Your task to perform on an android device: Empty the shopping cart on bestbuy. Search for "logitech g910" on bestbuy, select the first entry, add it to the cart, then select checkout. Image 0: 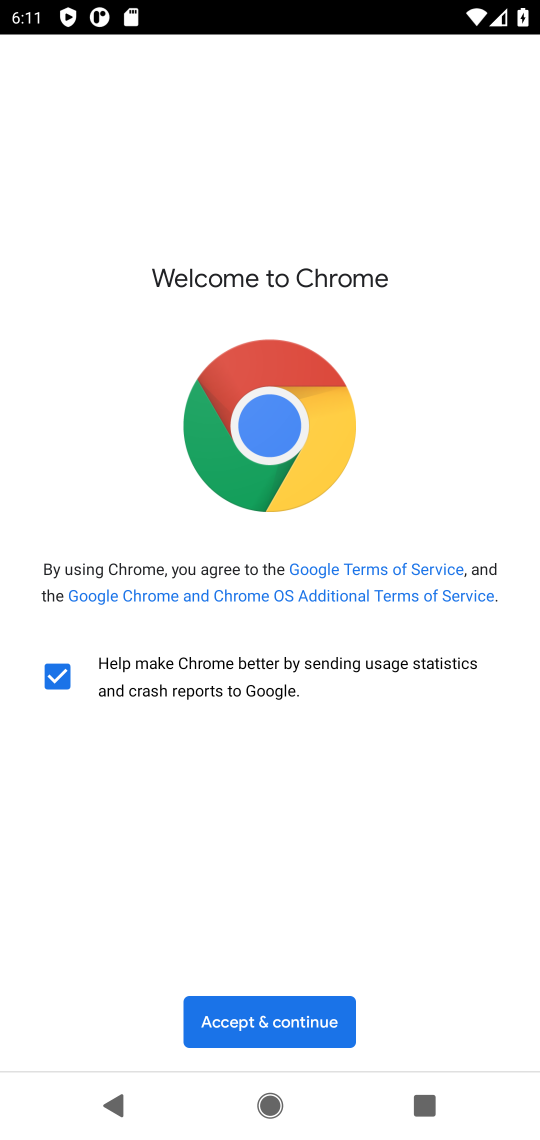
Step 0: press home button
Your task to perform on an android device: Empty the shopping cart on bestbuy. Search for "logitech g910" on bestbuy, select the first entry, add it to the cart, then select checkout. Image 1: 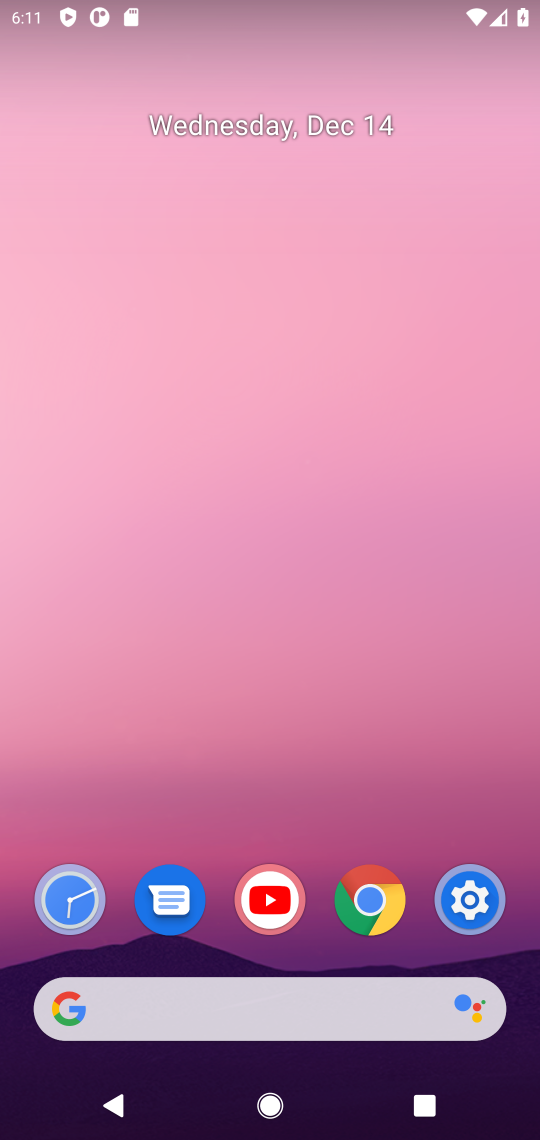
Step 1: click (277, 1010)
Your task to perform on an android device: Empty the shopping cart on bestbuy. Search for "logitech g910" on bestbuy, select the first entry, add it to the cart, then select checkout. Image 2: 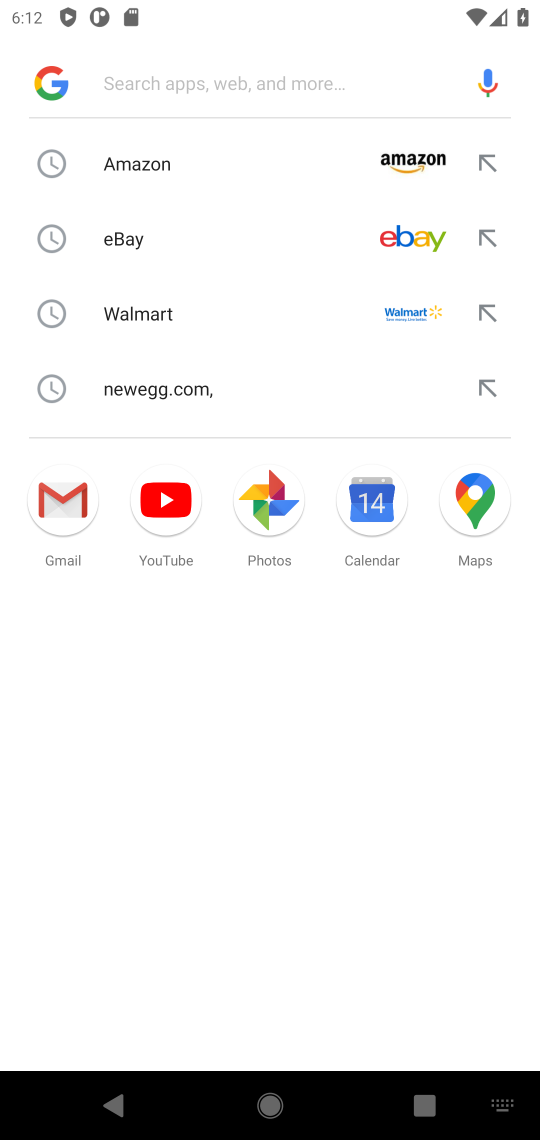
Step 2: type "bestbuy"
Your task to perform on an android device: Empty the shopping cart on bestbuy. Search for "logitech g910" on bestbuy, select the first entry, add it to the cart, then select checkout. Image 3: 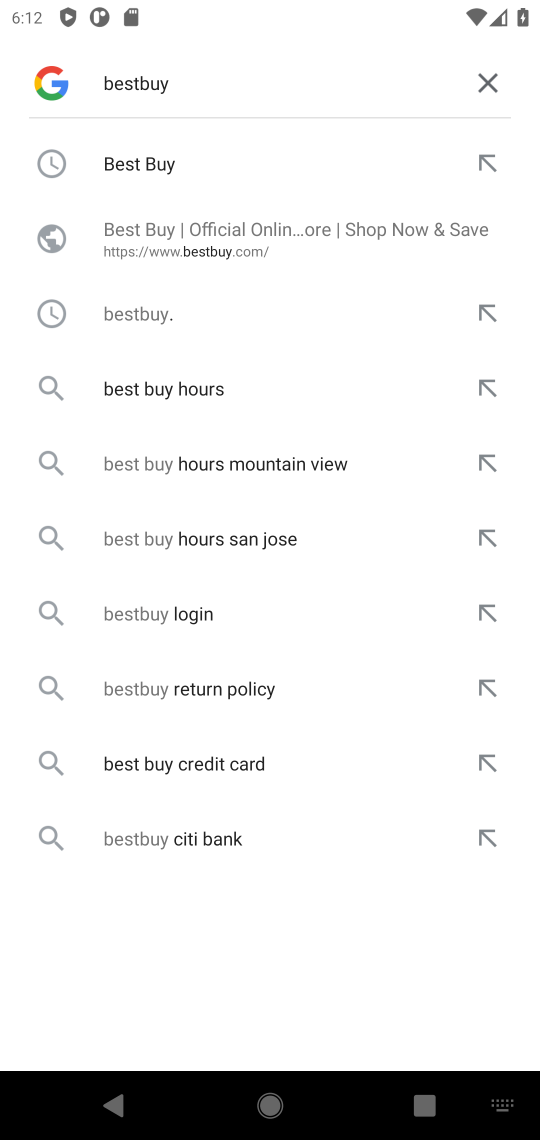
Step 3: click (132, 161)
Your task to perform on an android device: Empty the shopping cart on bestbuy. Search for "logitech g910" on bestbuy, select the first entry, add it to the cart, then select checkout. Image 4: 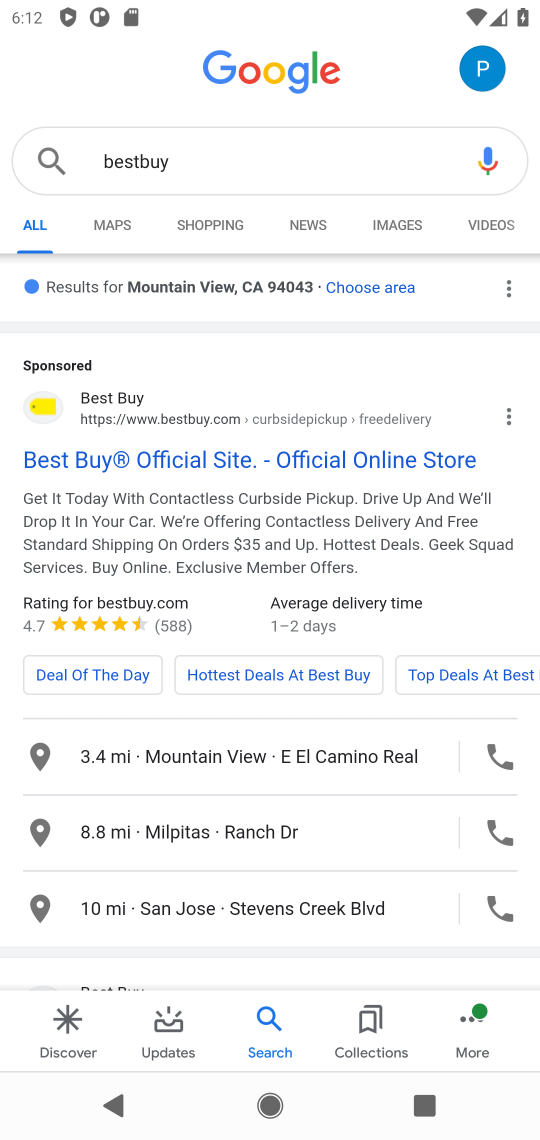
Step 4: click (122, 392)
Your task to perform on an android device: Empty the shopping cart on bestbuy. Search for "logitech g910" on bestbuy, select the first entry, add it to the cart, then select checkout. Image 5: 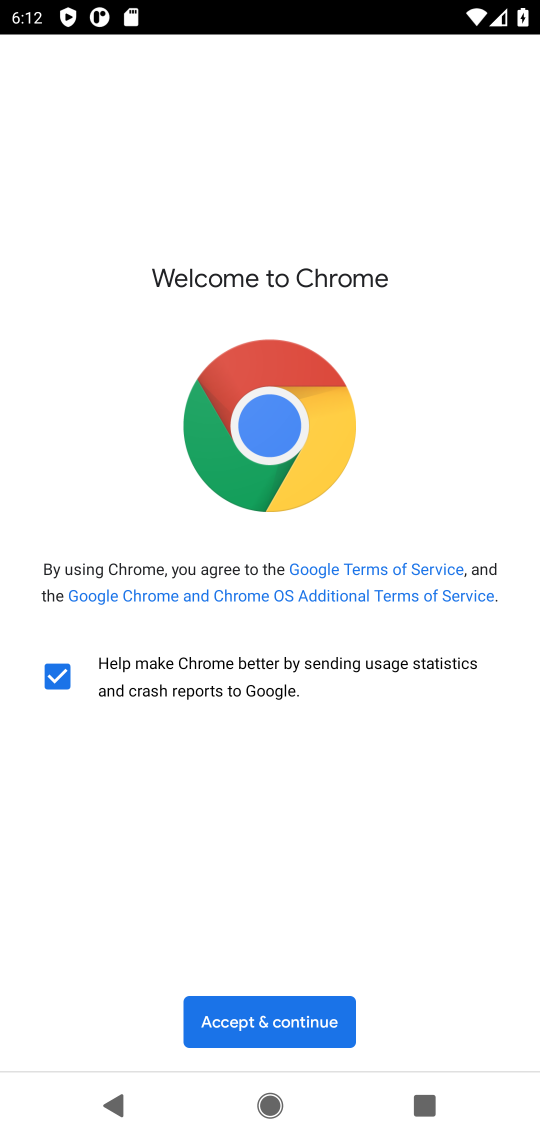
Step 5: click (249, 1026)
Your task to perform on an android device: Empty the shopping cart on bestbuy. Search for "logitech g910" on bestbuy, select the first entry, add it to the cart, then select checkout. Image 6: 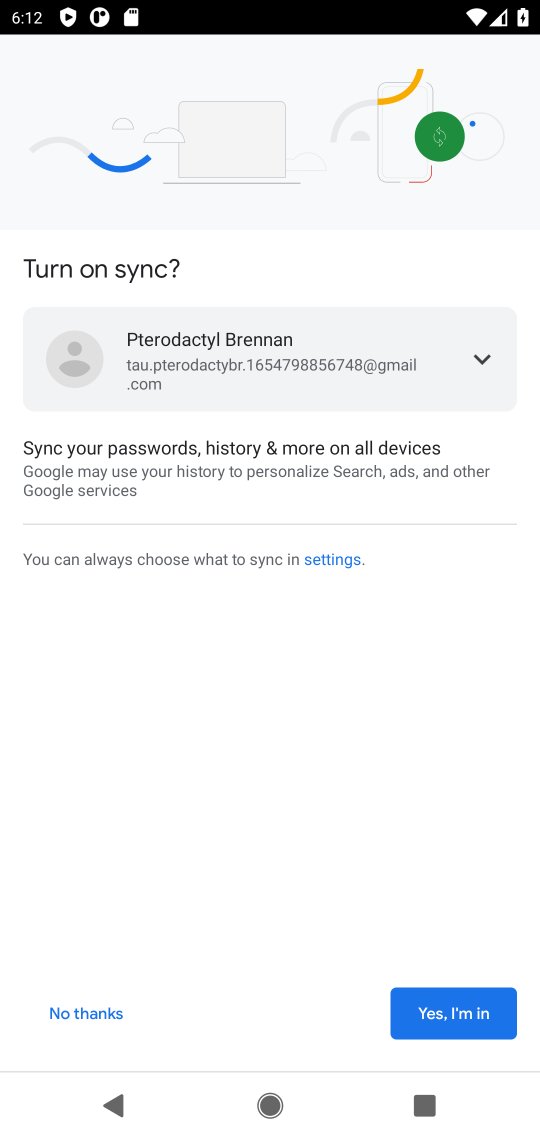
Step 6: click (434, 1025)
Your task to perform on an android device: Empty the shopping cart on bestbuy. Search for "logitech g910" on bestbuy, select the first entry, add it to the cart, then select checkout. Image 7: 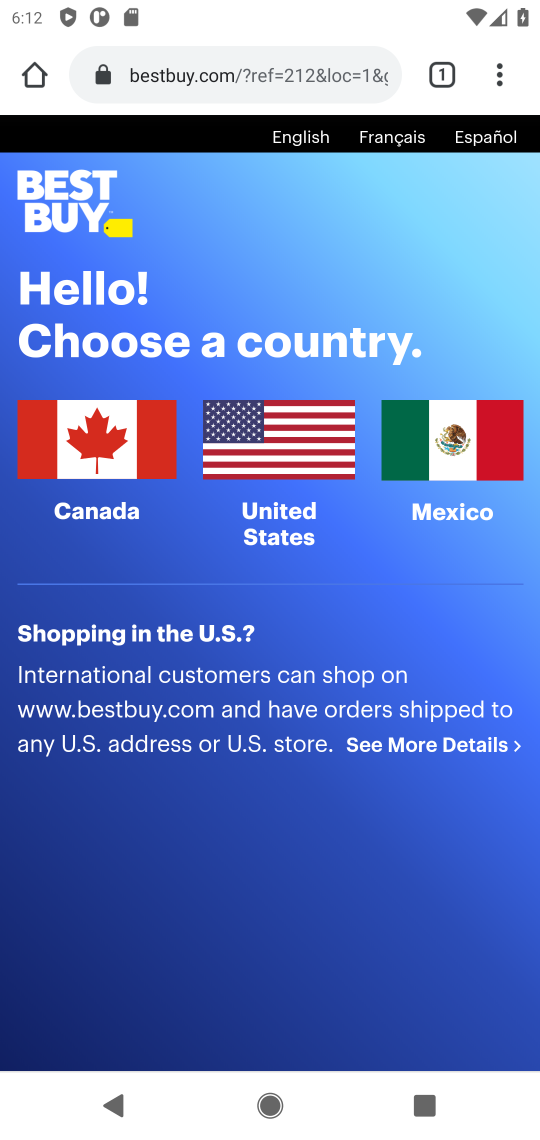
Step 7: click (257, 446)
Your task to perform on an android device: Empty the shopping cart on bestbuy. Search for "logitech g910" on bestbuy, select the first entry, add it to the cart, then select checkout. Image 8: 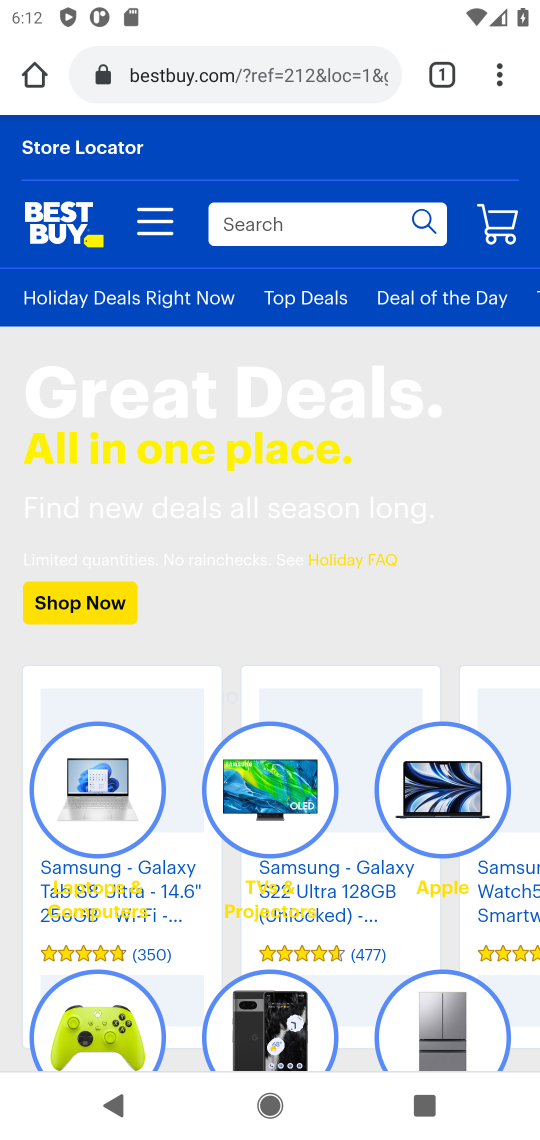
Step 8: click (312, 223)
Your task to perform on an android device: Empty the shopping cart on bestbuy. Search for "logitech g910" on bestbuy, select the first entry, add it to the cart, then select checkout. Image 9: 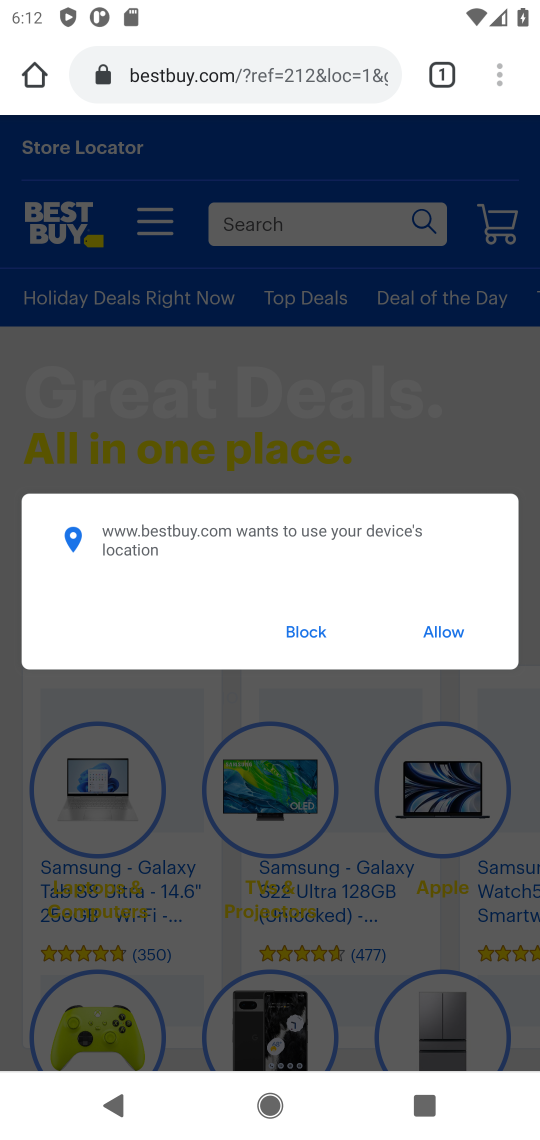
Step 9: click (457, 626)
Your task to perform on an android device: Empty the shopping cart on bestbuy. Search for "logitech g910" on bestbuy, select the first entry, add it to the cart, then select checkout. Image 10: 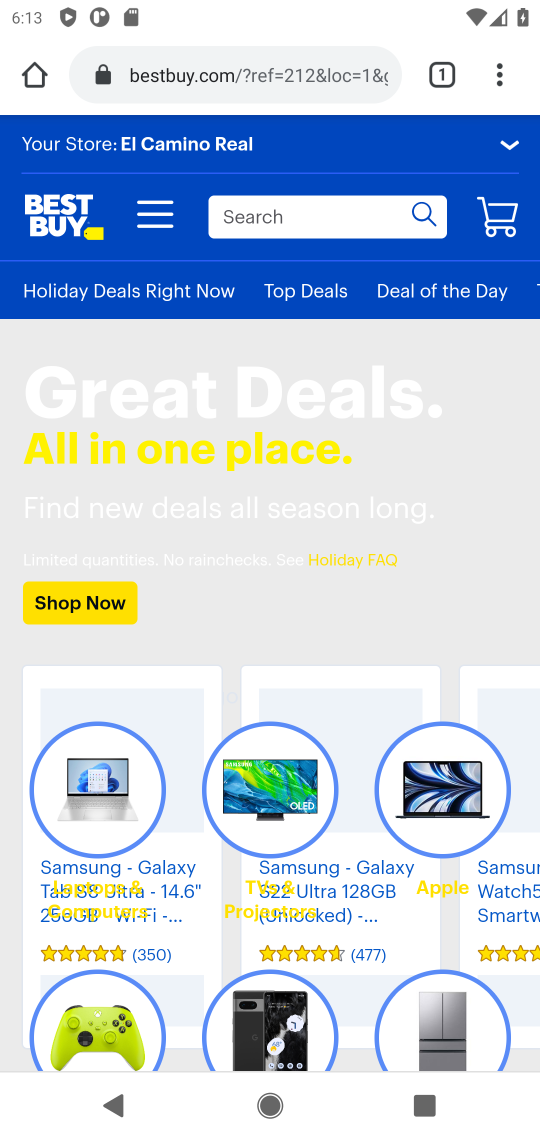
Step 10: click (305, 210)
Your task to perform on an android device: Empty the shopping cart on bestbuy. Search for "logitech g910" on bestbuy, select the first entry, add it to the cart, then select checkout. Image 11: 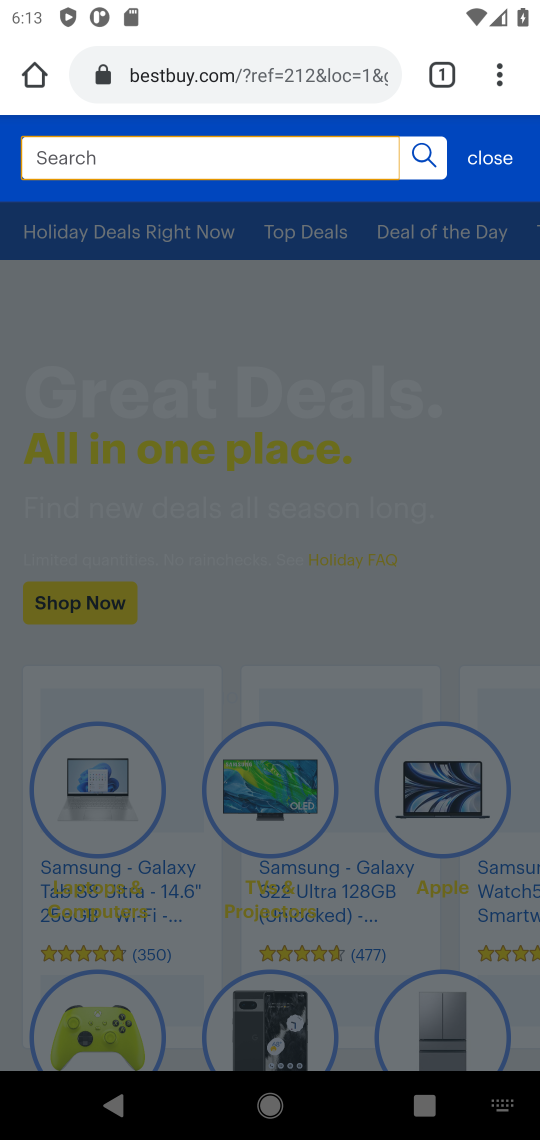
Step 11: type "logitech g910"
Your task to perform on an android device: Empty the shopping cart on bestbuy. Search for "logitech g910" on bestbuy, select the first entry, add it to the cart, then select checkout. Image 12: 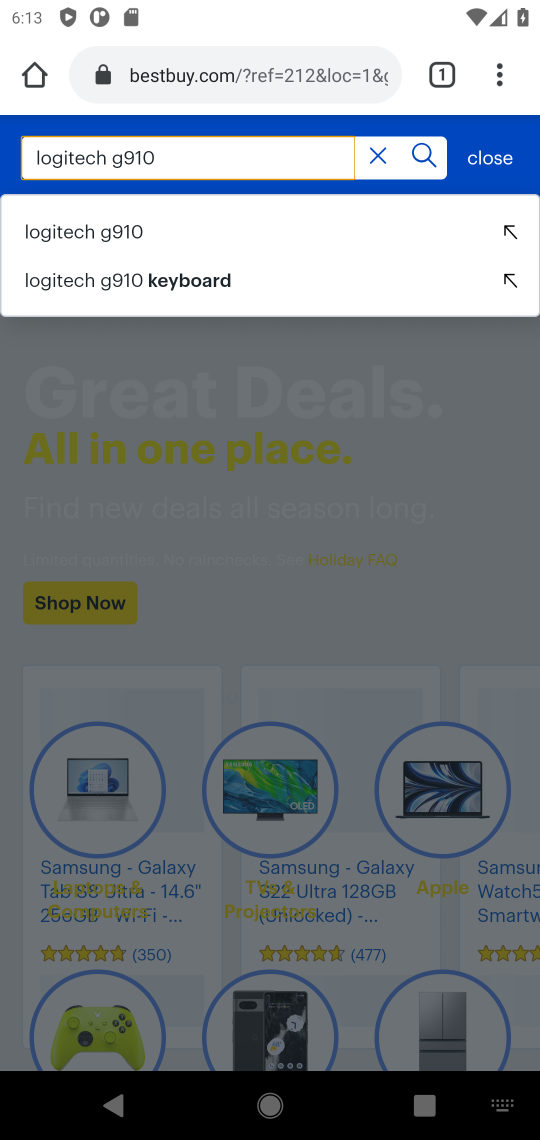
Step 12: click (140, 225)
Your task to perform on an android device: Empty the shopping cart on bestbuy. Search for "logitech g910" on bestbuy, select the first entry, add it to the cart, then select checkout. Image 13: 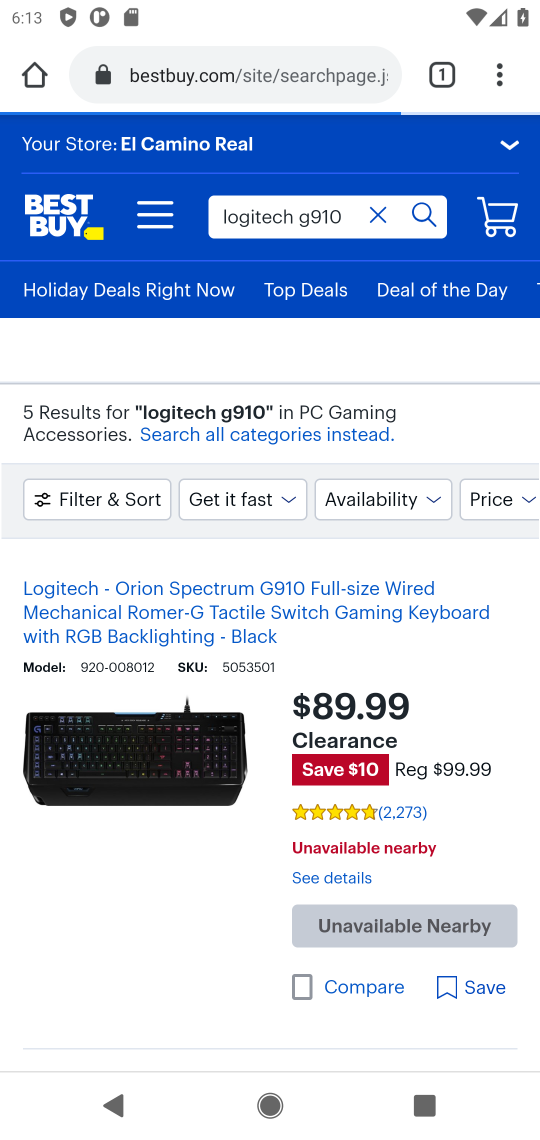
Step 13: click (328, 716)
Your task to perform on an android device: Empty the shopping cart on bestbuy. Search for "logitech g910" on bestbuy, select the first entry, add it to the cart, then select checkout. Image 14: 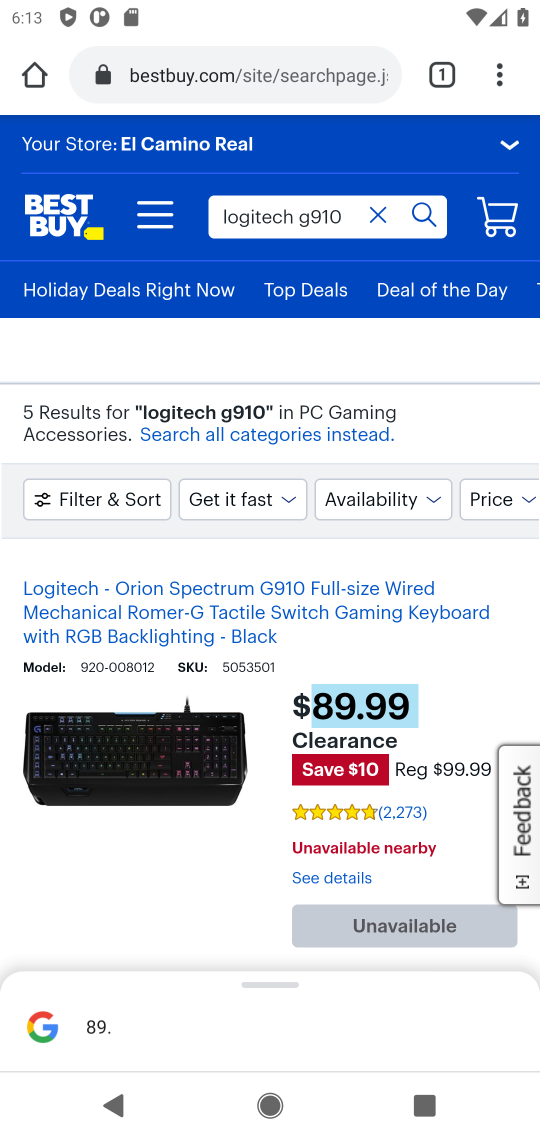
Step 14: task complete